Your task to perform on an android device: Show me popular videos on Youtube Image 0: 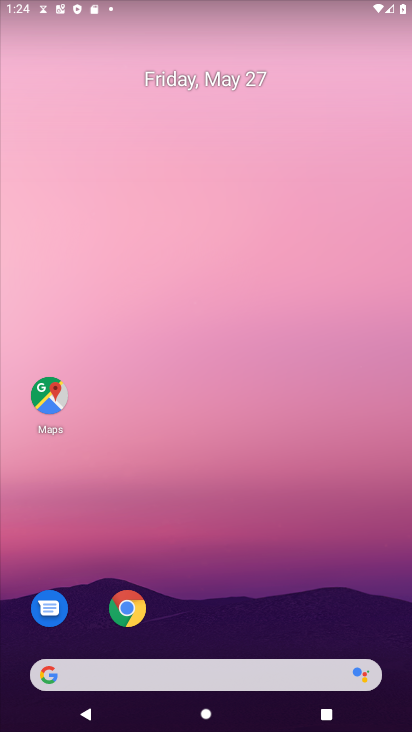
Step 0: drag from (254, 579) to (333, 5)
Your task to perform on an android device: Show me popular videos on Youtube Image 1: 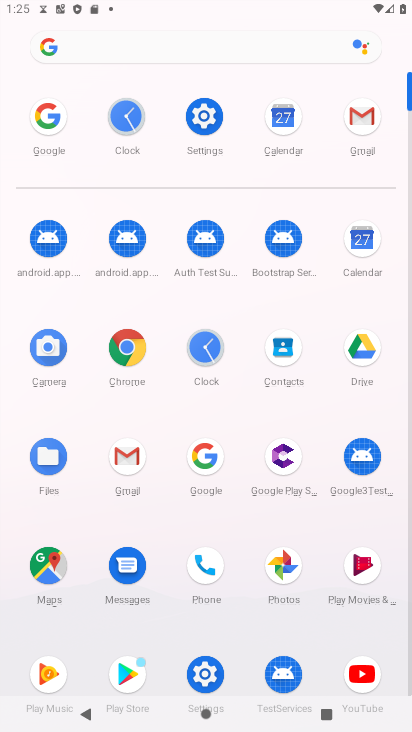
Step 1: click (348, 687)
Your task to perform on an android device: Show me popular videos on Youtube Image 2: 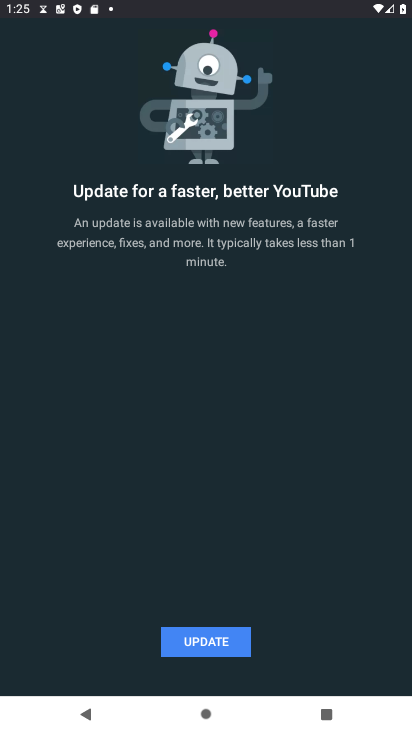
Step 2: click (217, 633)
Your task to perform on an android device: Show me popular videos on Youtube Image 3: 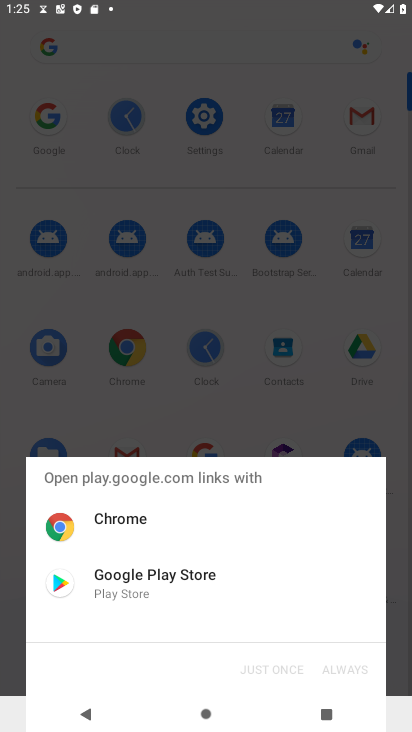
Step 3: click (178, 577)
Your task to perform on an android device: Show me popular videos on Youtube Image 4: 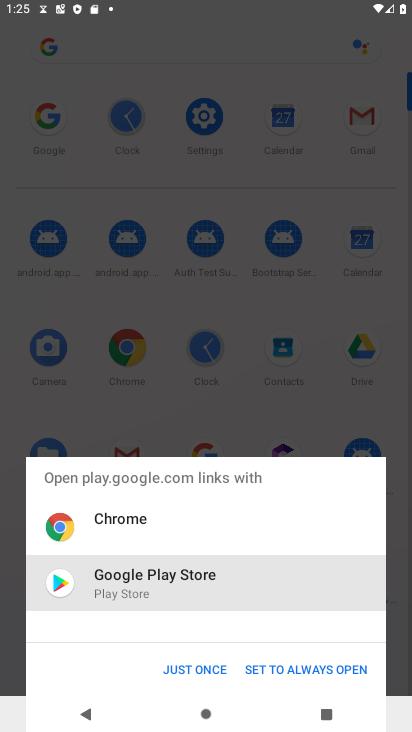
Step 4: click (202, 668)
Your task to perform on an android device: Show me popular videos on Youtube Image 5: 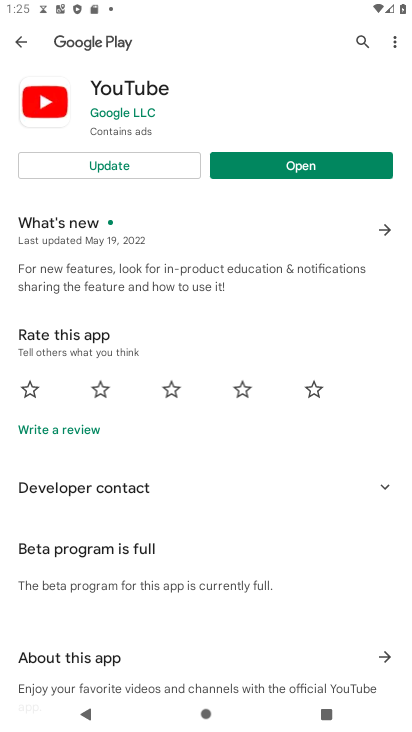
Step 5: click (113, 167)
Your task to perform on an android device: Show me popular videos on Youtube Image 6: 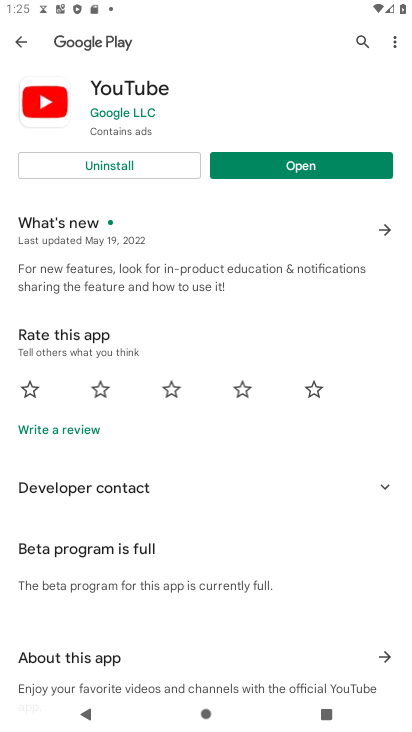
Step 6: click (290, 168)
Your task to perform on an android device: Show me popular videos on Youtube Image 7: 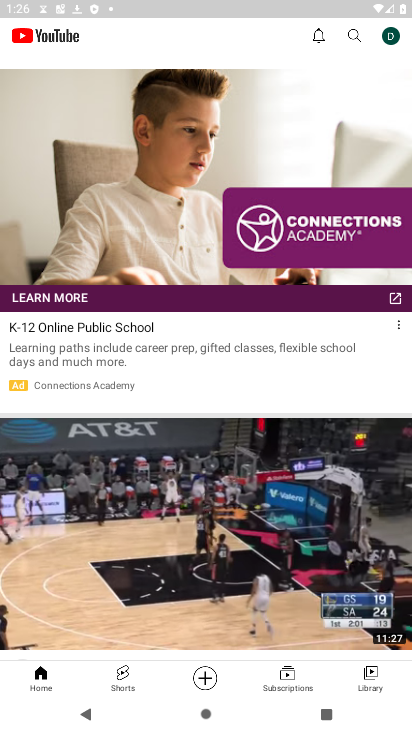
Step 7: drag from (142, 185) to (131, 446)
Your task to perform on an android device: Show me popular videos on Youtube Image 8: 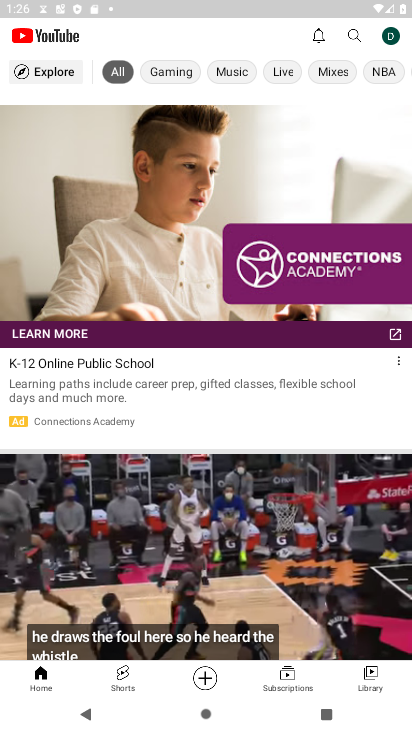
Step 8: click (53, 78)
Your task to perform on an android device: Show me popular videos on Youtube Image 9: 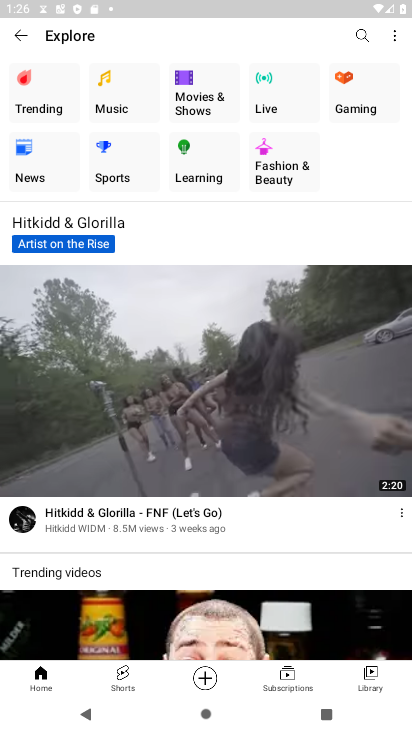
Step 9: click (48, 98)
Your task to perform on an android device: Show me popular videos on Youtube Image 10: 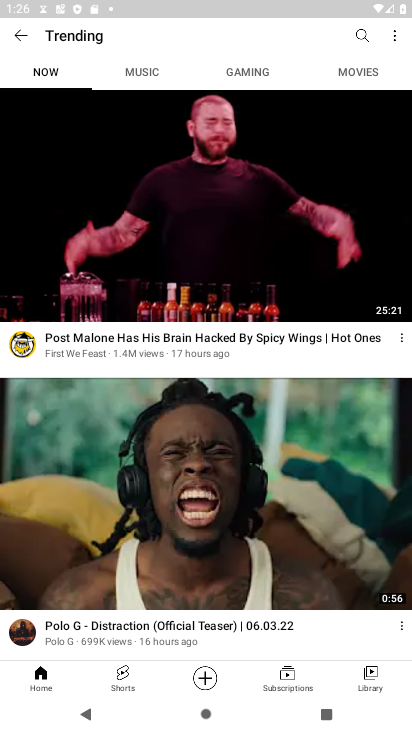
Step 10: click (232, 234)
Your task to perform on an android device: Show me popular videos on Youtube Image 11: 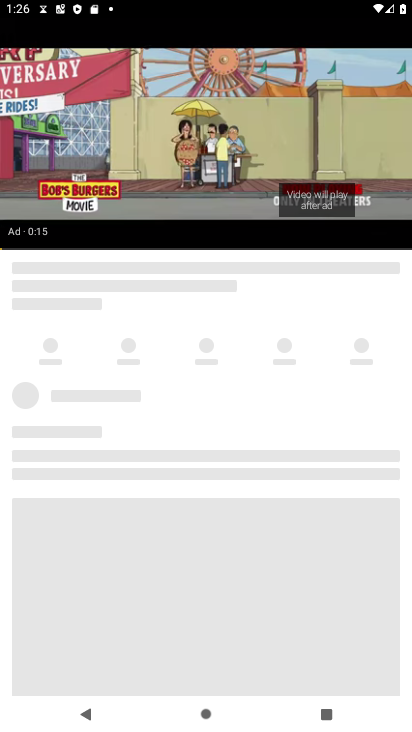
Step 11: task complete